Your task to perform on an android device: See recent photos Image 0: 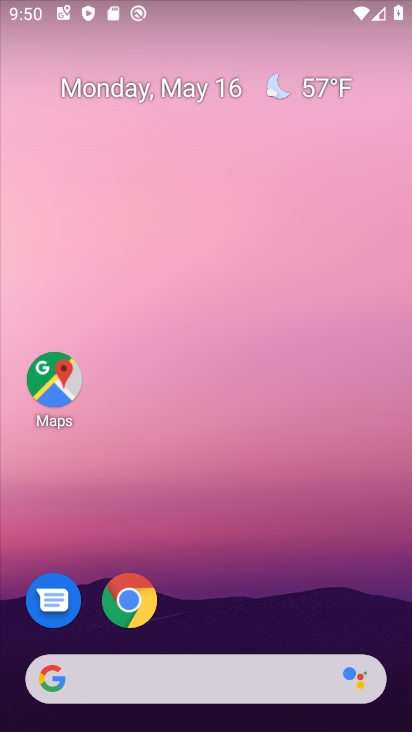
Step 0: drag from (351, 570) to (259, 157)
Your task to perform on an android device: See recent photos Image 1: 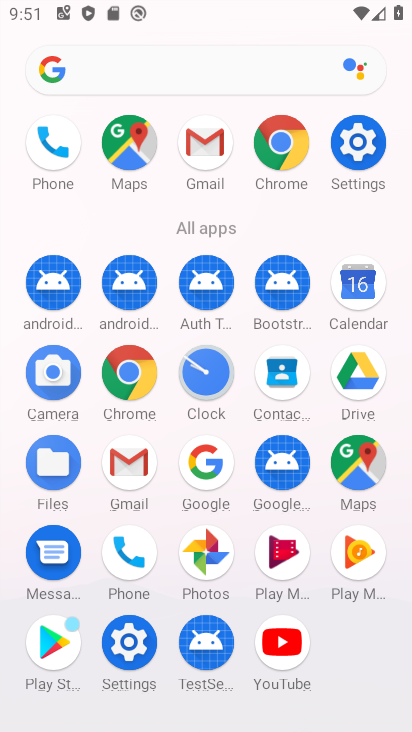
Step 1: click (213, 550)
Your task to perform on an android device: See recent photos Image 2: 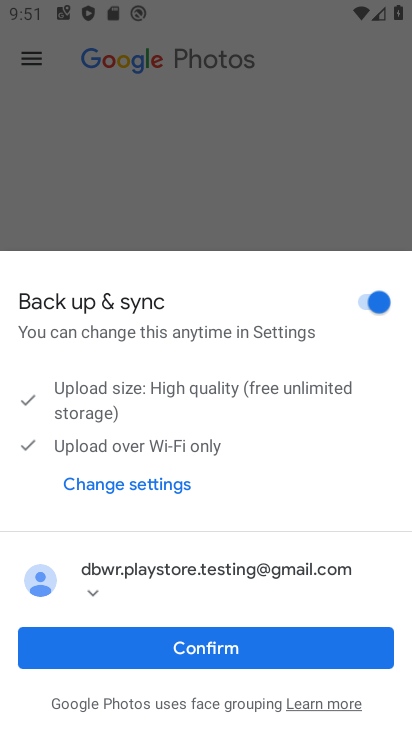
Step 2: click (208, 657)
Your task to perform on an android device: See recent photos Image 3: 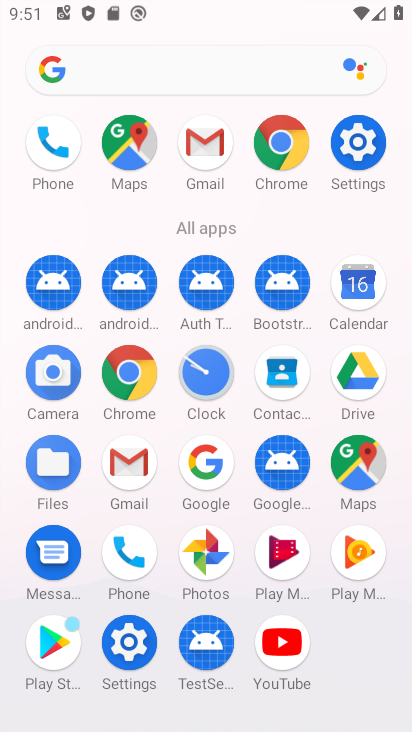
Step 3: click (210, 556)
Your task to perform on an android device: See recent photos Image 4: 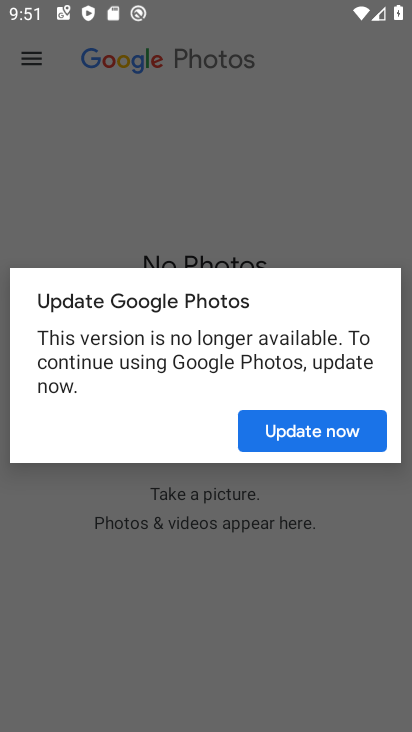
Step 4: click (291, 447)
Your task to perform on an android device: See recent photos Image 5: 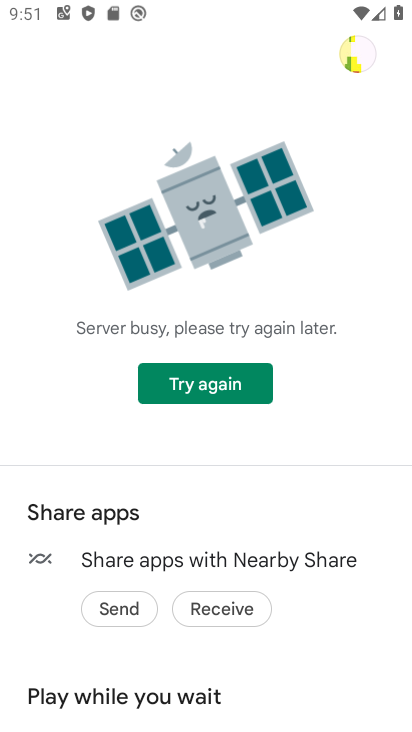
Step 5: task complete